Your task to perform on an android device: What's on my calendar tomorrow? Image 0: 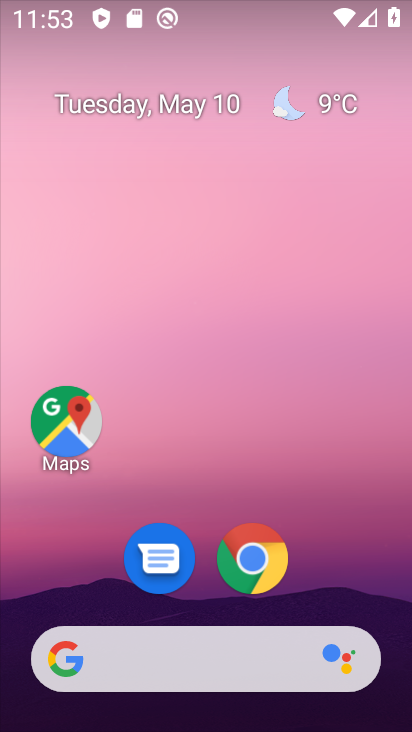
Step 0: drag from (380, 553) to (375, 194)
Your task to perform on an android device: What's on my calendar tomorrow? Image 1: 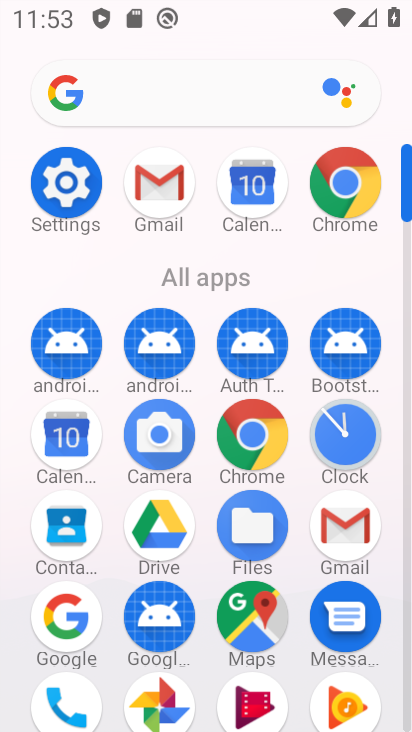
Step 1: click (62, 452)
Your task to perform on an android device: What's on my calendar tomorrow? Image 2: 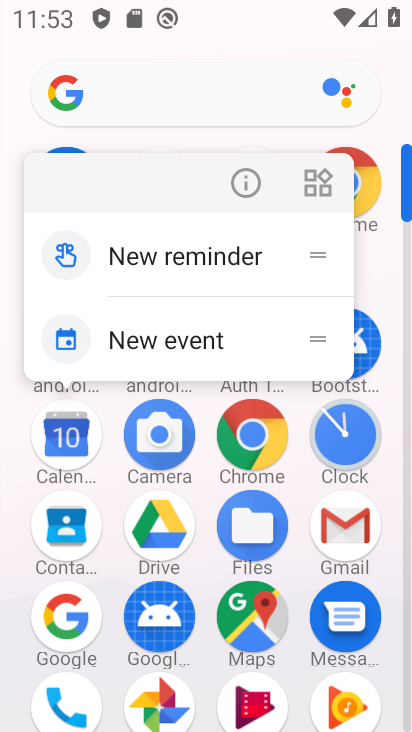
Step 2: click (62, 441)
Your task to perform on an android device: What's on my calendar tomorrow? Image 3: 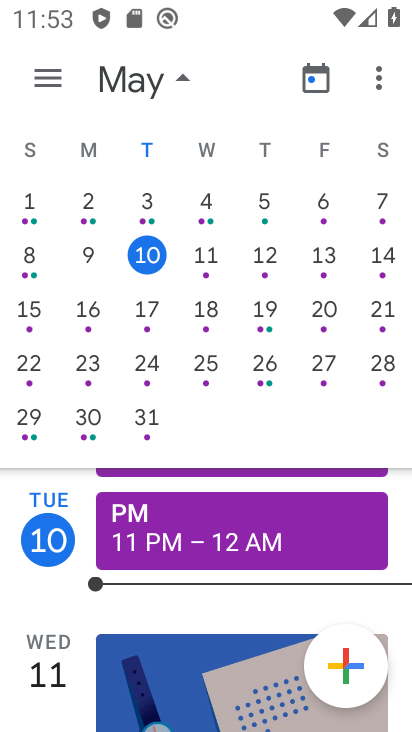
Step 3: click (207, 257)
Your task to perform on an android device: What's on my calendar tomorrow? Image 4: 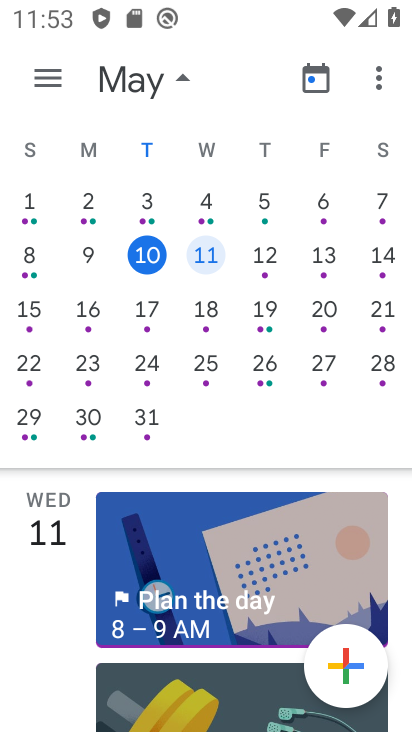
Step 4: task complete